Your task to perform on an android device: empty trash in the gmail app Image 0: 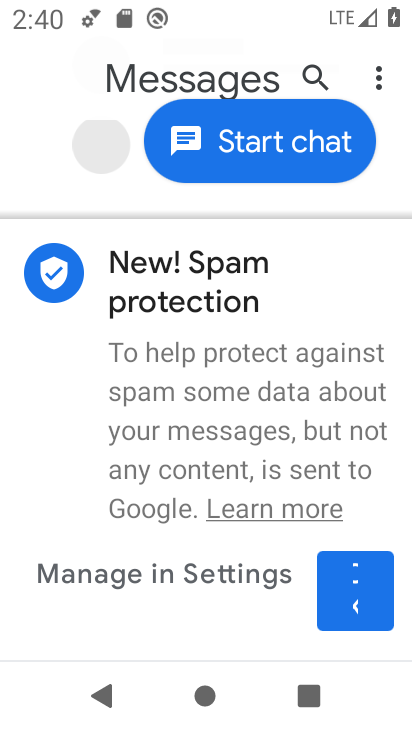
Step 0: press home button
Your task to perform on an android device: empty trash in the gmail app Image 1: 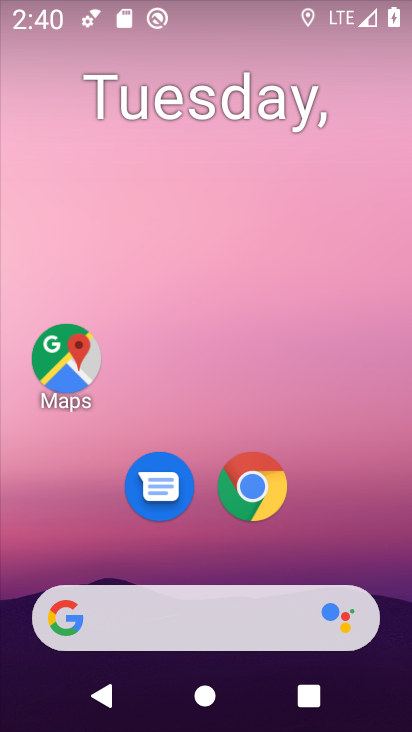
Step 1: drag from (334, 516) to (313, 1)
Your task to perform on an android device: empty trash in the gmail app Image 2: 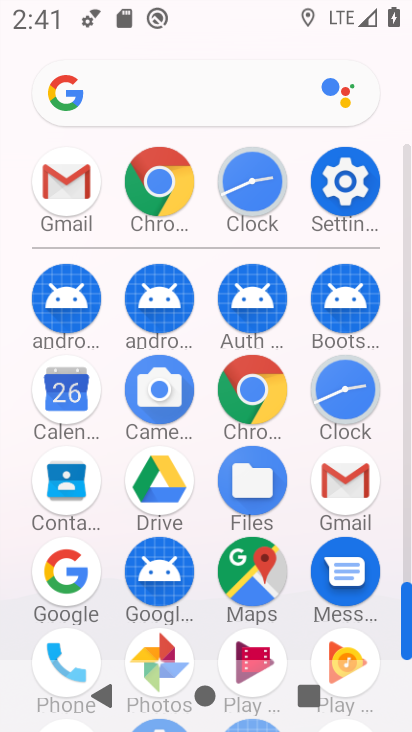
Step 2: click (332, 492)
Your task to perform on an android device: empty trash in the gmail app Image 3: 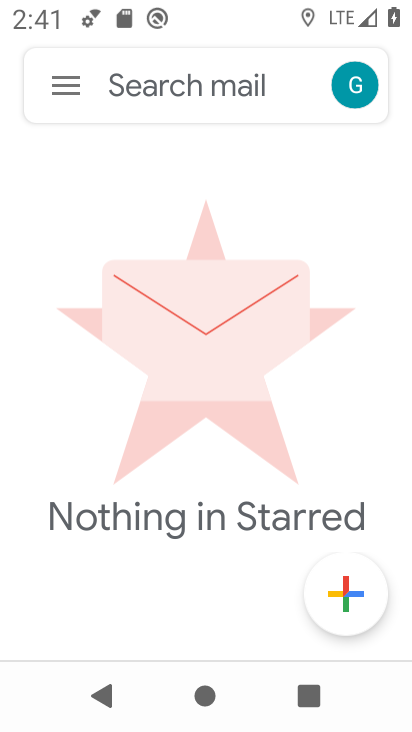
Step 3: click (71, 74)
Your task to perform on an android device: empty trash in the gmail app Image 4: 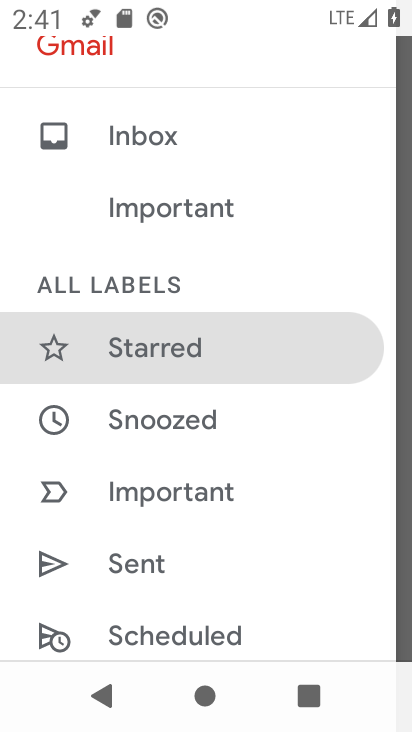
Step 4: drag from (343, 507) to (339, 434)
Your task to perform on an android device: empty trash in the gmail app Image 5: 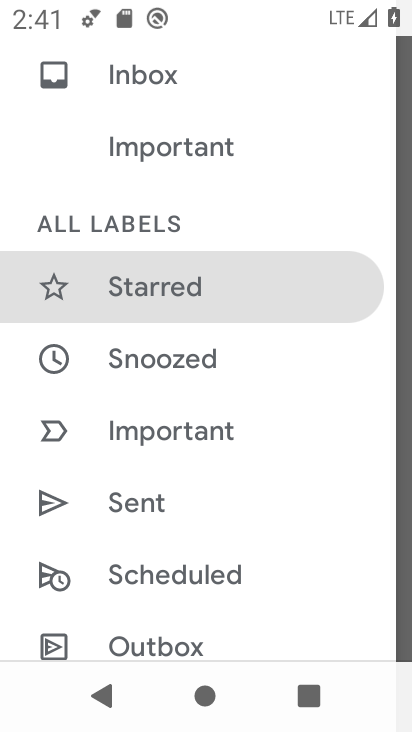
Step 5: drag from (317, 524) to (311, 451)
Your task to perform on an android device: empty trash in the gmail app Image 6: 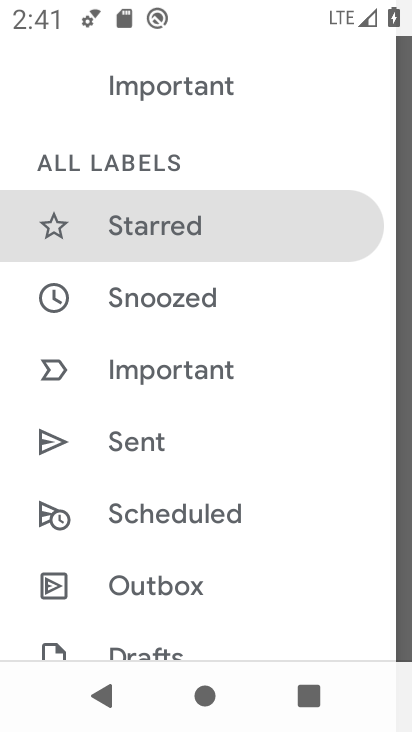
Step 6: drag from (309, 559) to (310, 475)
Your task to perform on an android device: empty trash in the gmail app Image 7: 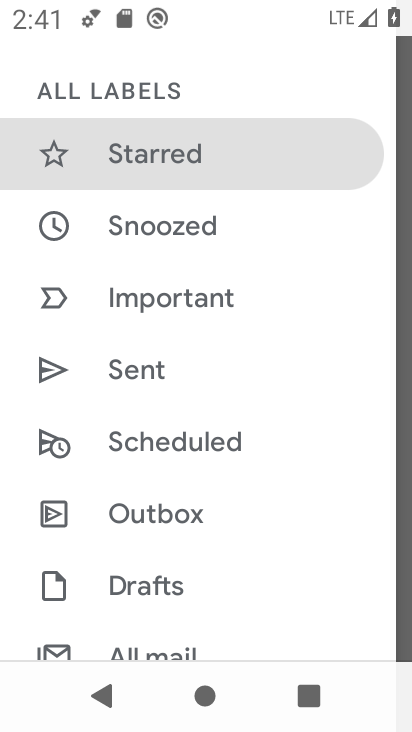
Step 7: drag from (300, 570) to (294, 480)
Your task to perform on an android device: empty trash in the gmail app Image 8: 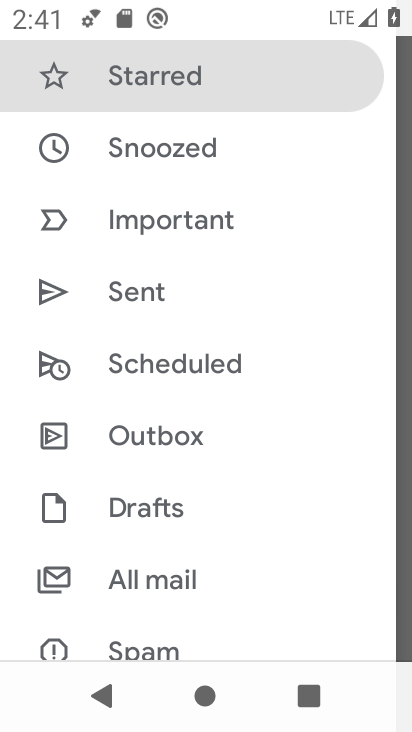
Step 8: drag from (309, 549) to (309, 472)
Your task to perform on an android device: empty trash in the gmail app Image 9: 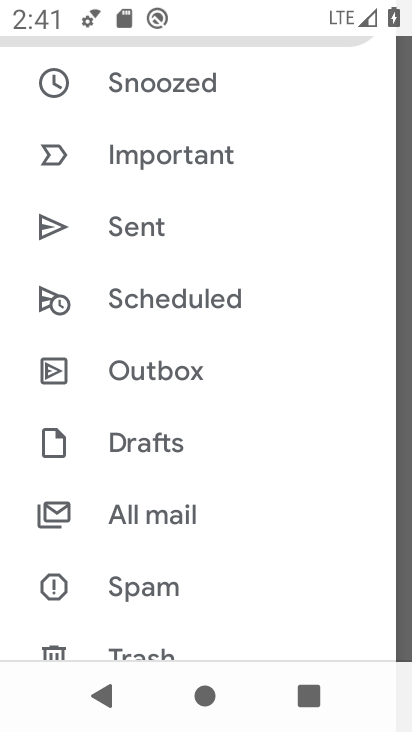
Step 9: drag from (301, 572) to (301, 484)
Your task to perform on an android device: empty trash in the gmail app Image 10: 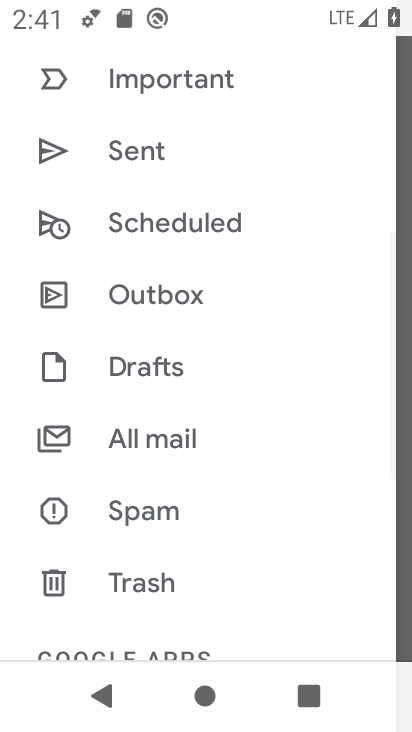
Step 10: drag from (279, 573) to (279, 480)
Your task to perform on an android device: empty trash in the gmail app Image 11: 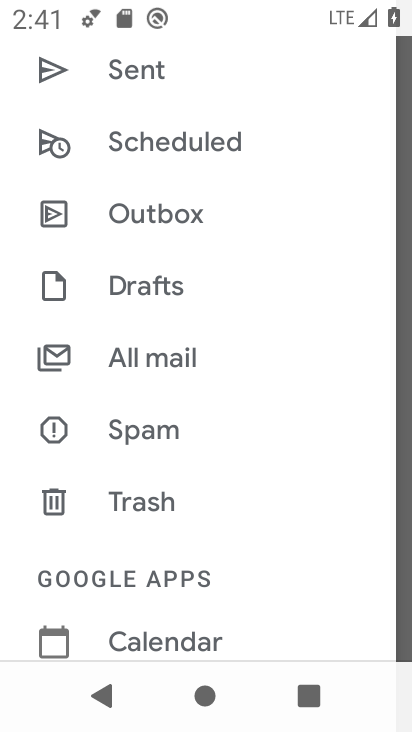
Step 11: click (171, 517)
Your task to perform on an android device: empty trash in the gmail app Image 12: 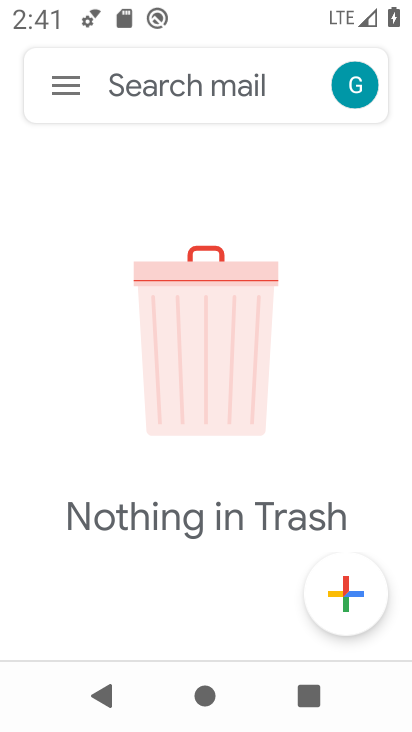
Step 12: task complete